Your task to perform on an android device: Open Amazon Image 0: 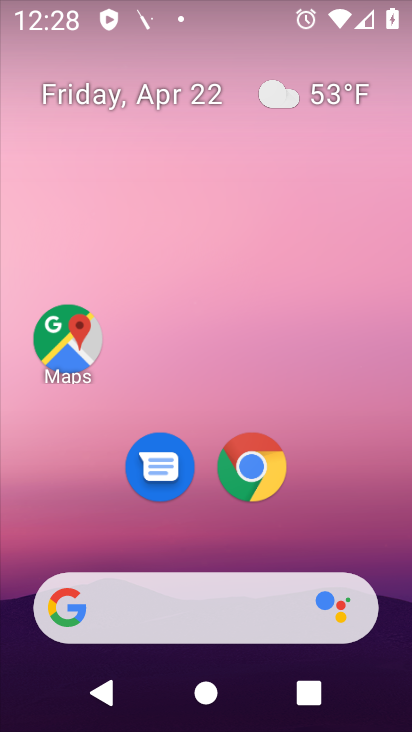
Step 0: click (251, 465)
Your task to perform on an android device: Open Amazon Image 1: 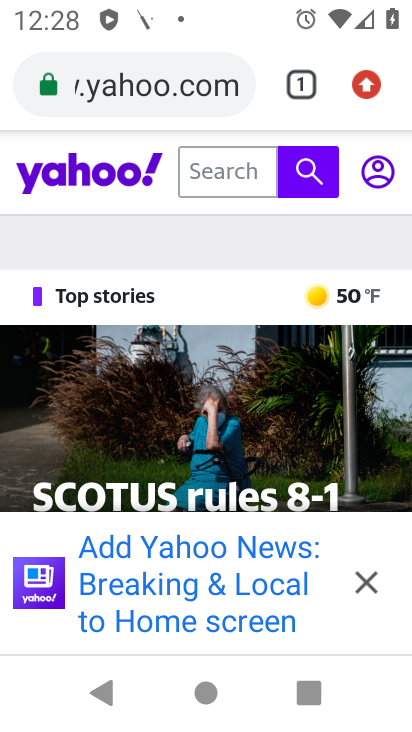
Step 1: click (117, 72)
Your task to perform on an android device: Open Amazon Image 2: 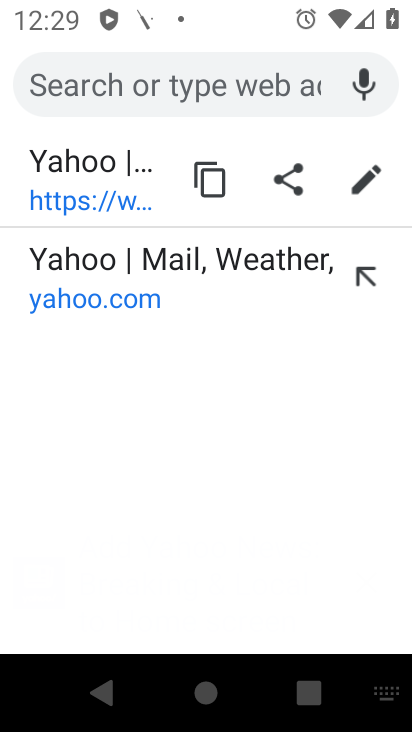
Step 2: type "amazon"
Your task to perform on an android device: Open Amazon Image 3: 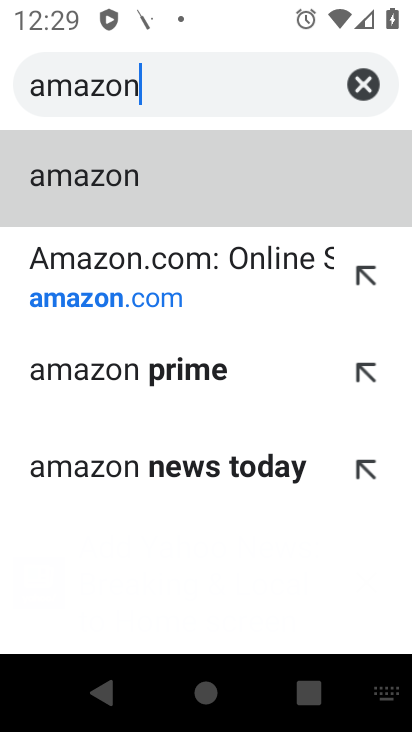
Step 3: click (75, 262)
Your task to perform on an android device: Open Amazon Image 4: 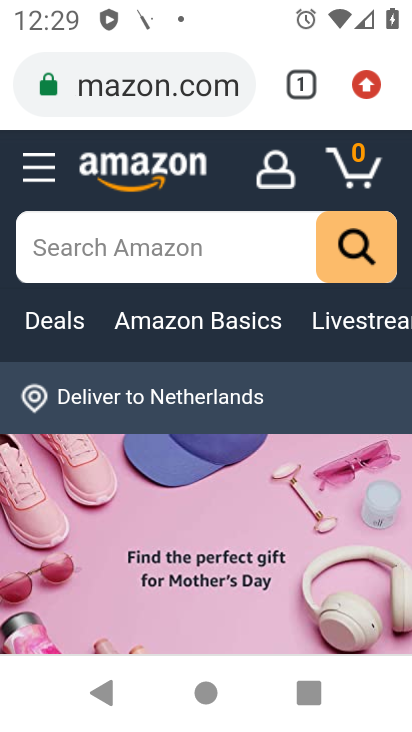
Step 4: task complete